Your task to perform on an android device: Go to display settings Image 0: 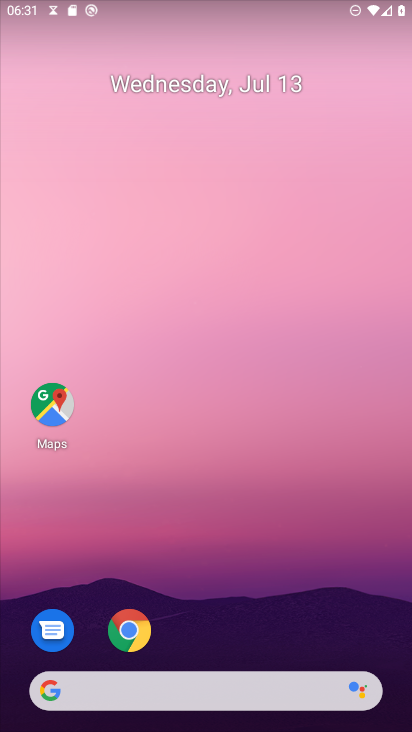
Step 0: drag from (278, 679) to (367, 149)
Your task to perform on an android device: Go to display settings Image 1: 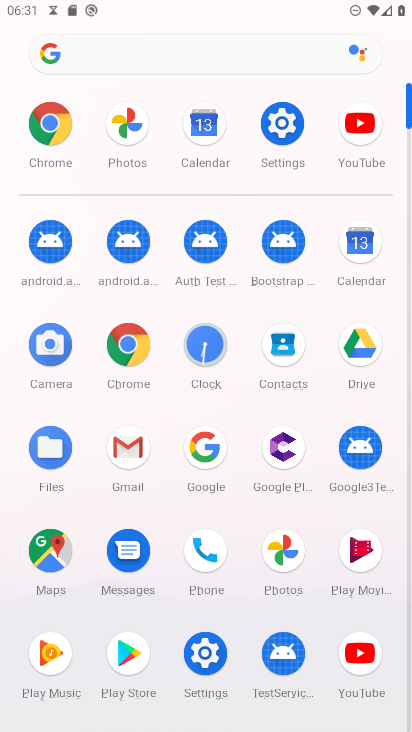
Step 1: click (297, 107)
Your task to perform on an android device: Go to display settings Image 2: 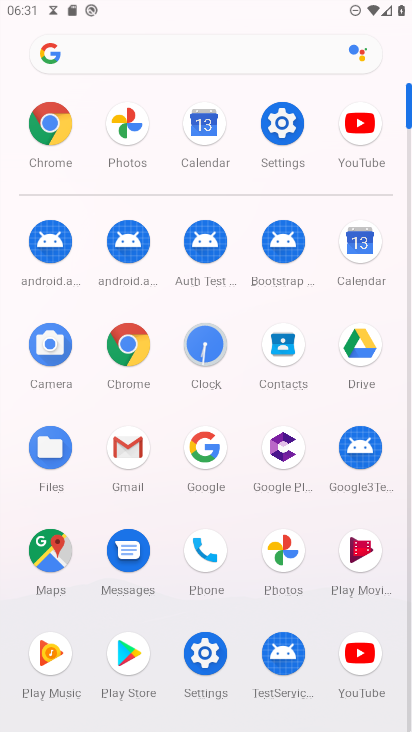
Step 2: click (291, 114)
Your task to perform on an android device: Go to display settings Image 3: 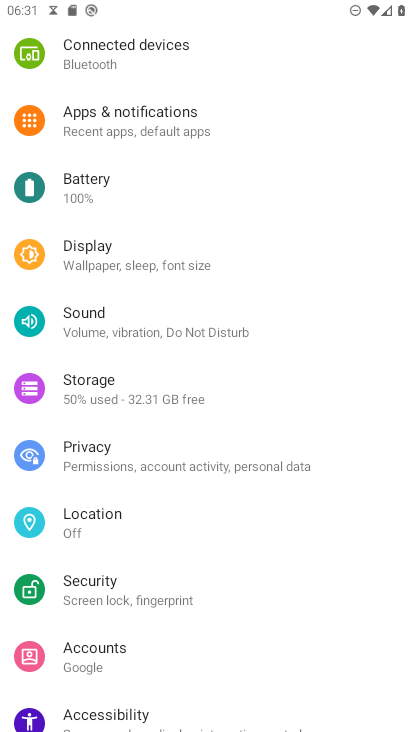
Step 3: click (119, 266)
Your task to perform on an android device: Go to display settings Image 4: 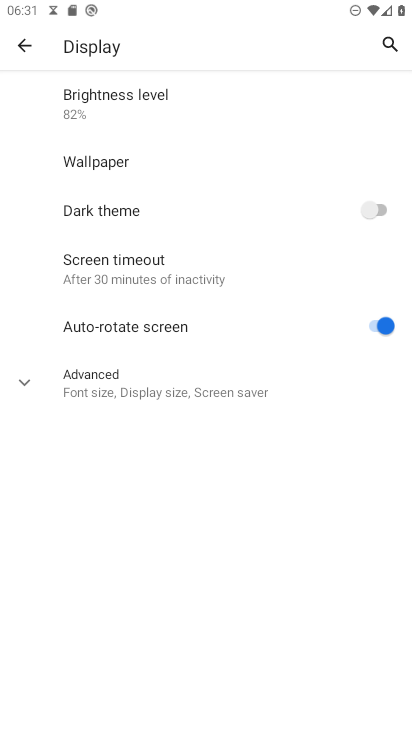
Step 4: task complete